Your task to perform on an android device: Open display settings Image 0: 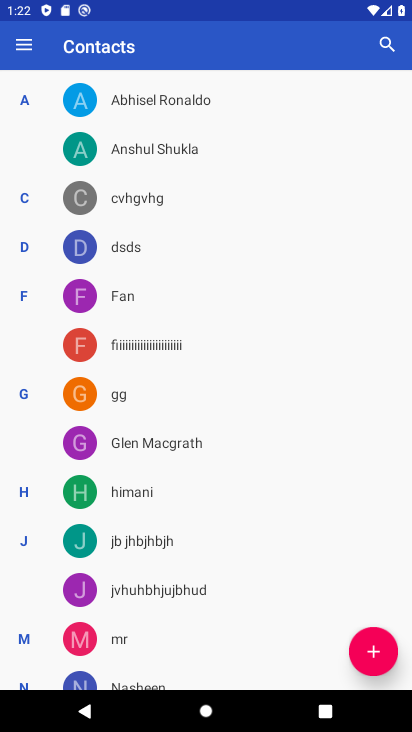
Step 0: press home button
Your task to perform on an android device: Open display settings Image 1: 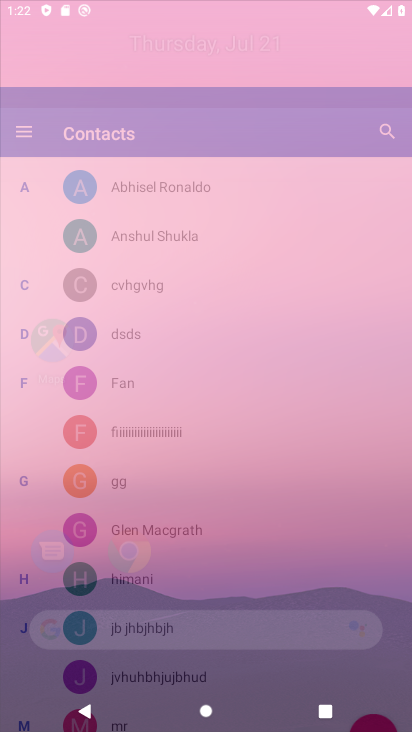
Step 1: press home button
Your task to perform on an android device: Open display settings Image 2: 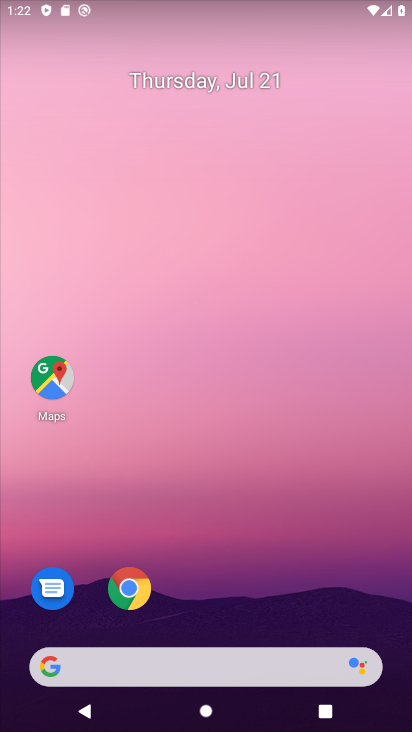
Step 2: drag from (210, 642) to (214, 22)
Your task to perform on an android device: Open display settings Image 3: 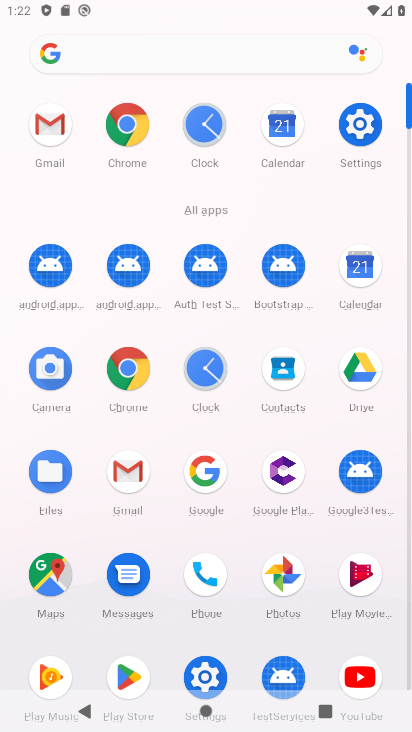
Step 3: click (355, 136)
Your task to perform on an android device: Open display settings Image 4: 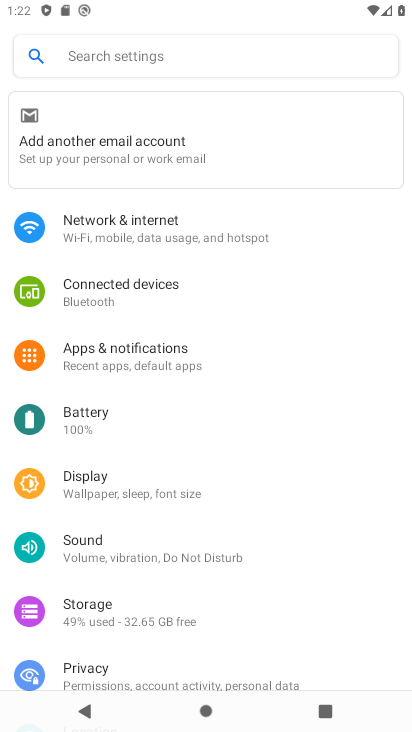
Step 4: drag from (256, 618) to (224, 241)
Your task to perform on an android device: Open display settings Image 5: 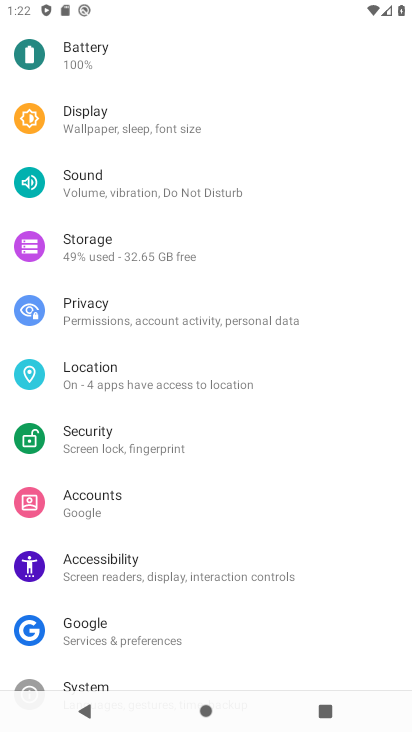
Step 5: click (68, 103)
Your task to perform on an android device: Open display settings Image 6: 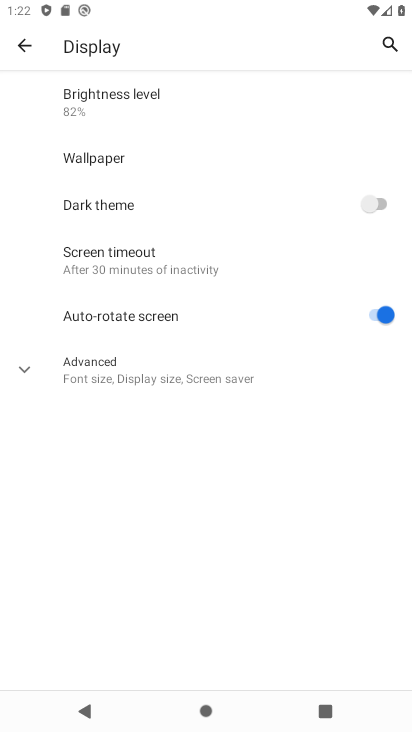
Step 6: task complete